Your task to perform on an android device: Is it going to rain today? Image 0: 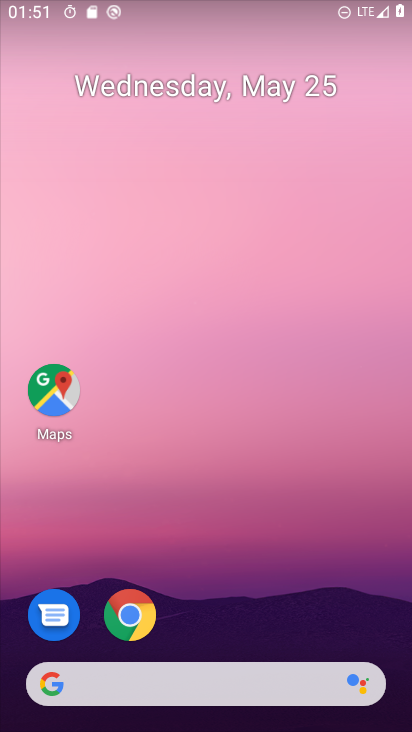
Step 0: press home button
Your task to perform on an android device: Is it going to rain today? Image 1: 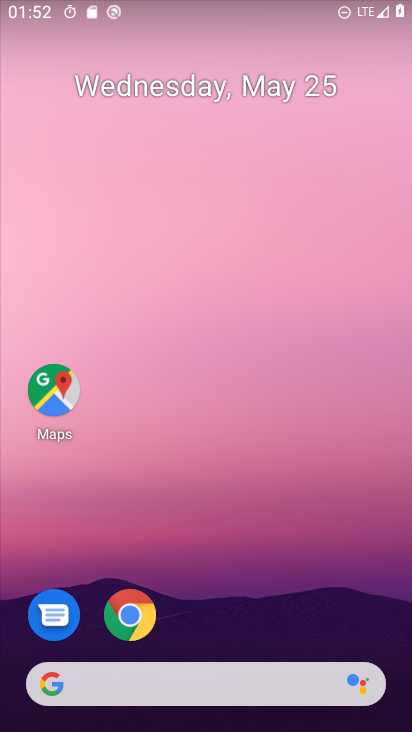
Step 1: drag from (225, 689) to (311, 162)
Your task to perform on an android device: Is it going to rain today? Image 2: 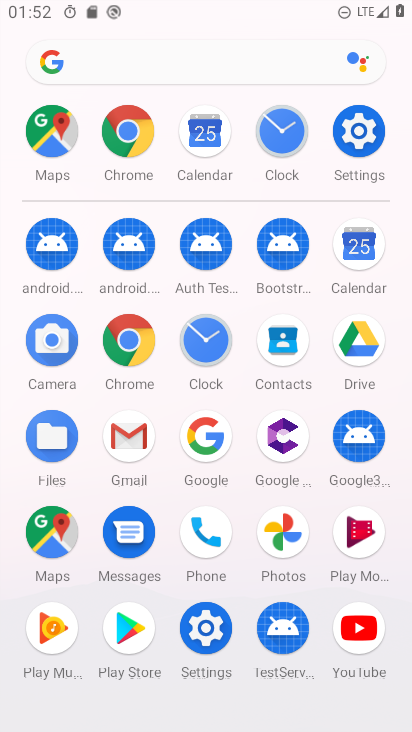
Step 2: click (141, 69)
Your task to perform on an android device: Is it going to rain today? Image 3: 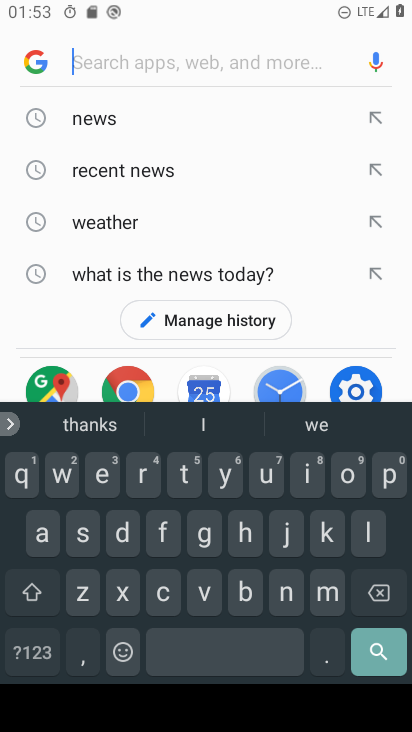
Step 3: click (143, 221)
Your task to perform on an android device: Is it going to rain today? Image 4: 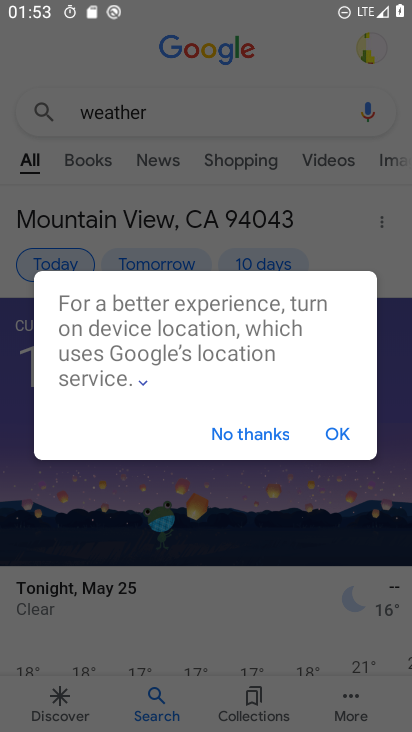
Step 4: click (266, 434)
Your task to perform on an android device: Is it going to rain today? Image 5: 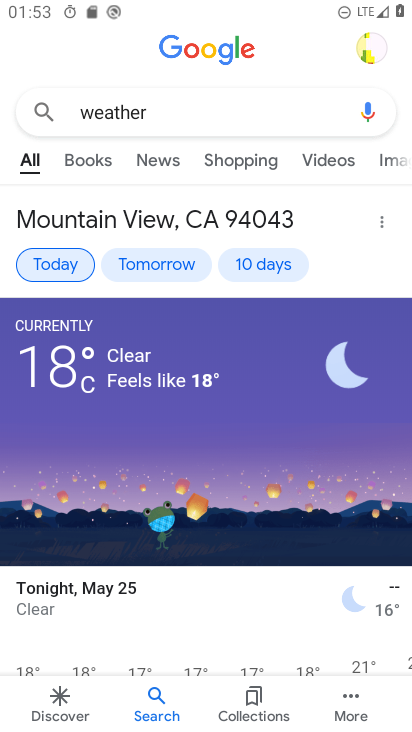
Step 5: task complete